Your task to perform on an android device: make emails show in primary in the gmail app Image 0: 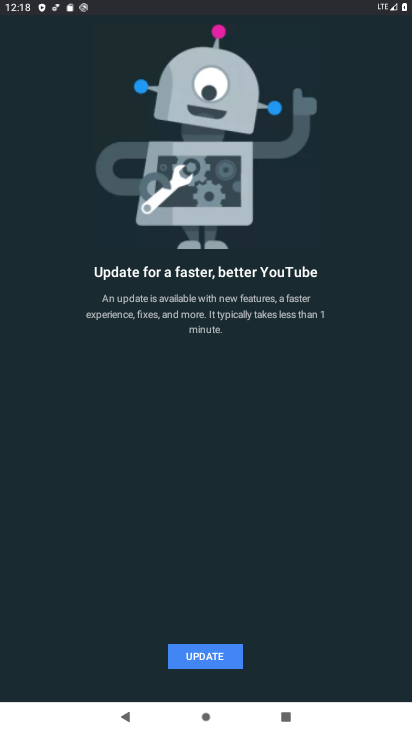
Step 0: press home button
Your task to perform on an android device: make emails show in primary in the gmail app Image 1: 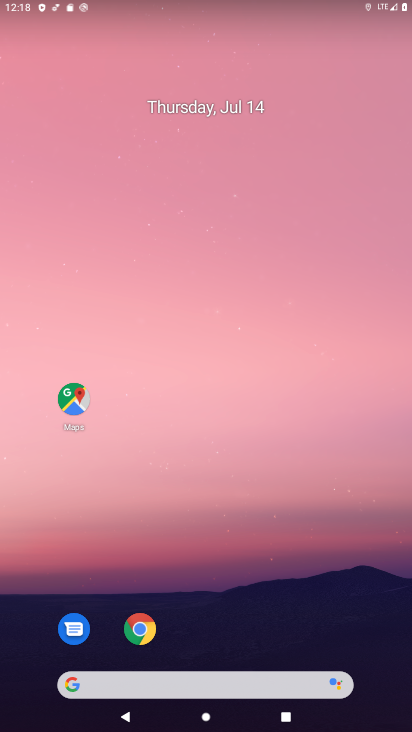
Step 1: drag from (278, 624) to (190, 109)
Your task to perform on an android device: make emails show in primary in the gmail app Image 2: 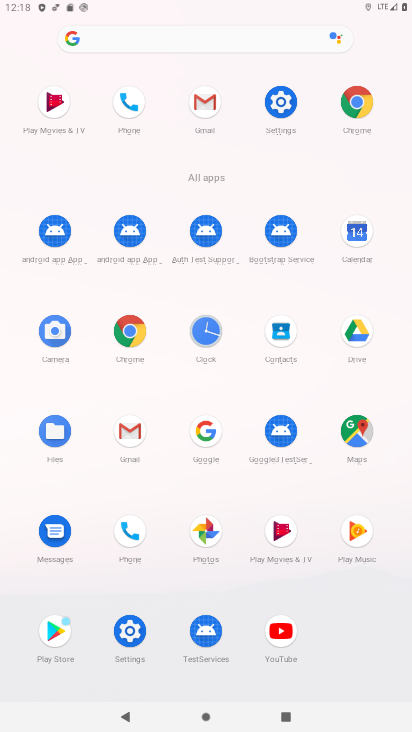
Step 2: click (192, 110)
Your task to perform on an android device: make emails show in primary in the gmail app Image 3: 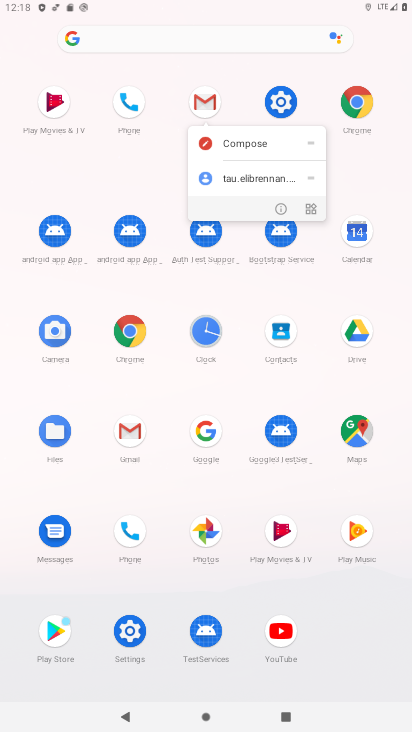
Step 3: click (192, 109)
Your task to perform on an android device: make emails show in primary in the gmail app Image 4: 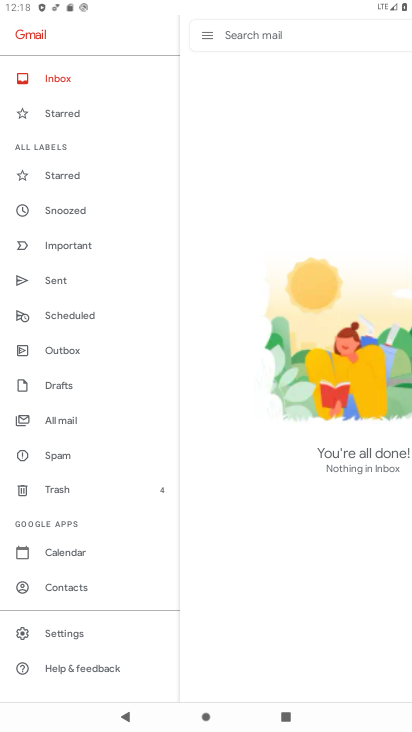
Step 4: click (66, 625)
Your task to perform on an android device: make emails show in primary in the gmail app Image 5: 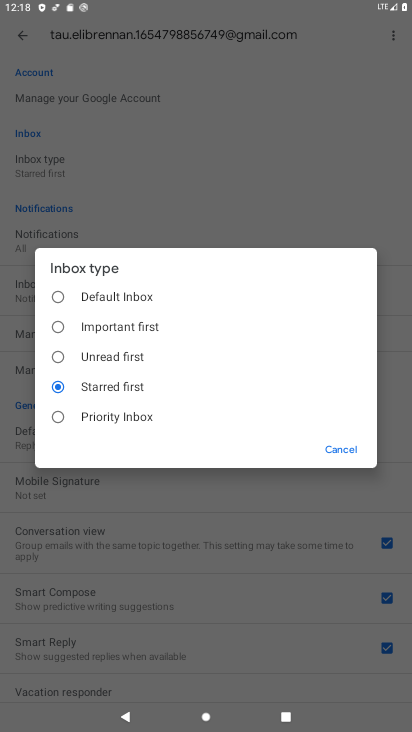
Step 5: click (90, 301)
Your task to perform on an android device: make emails show in primary in the gmail app Image 6: 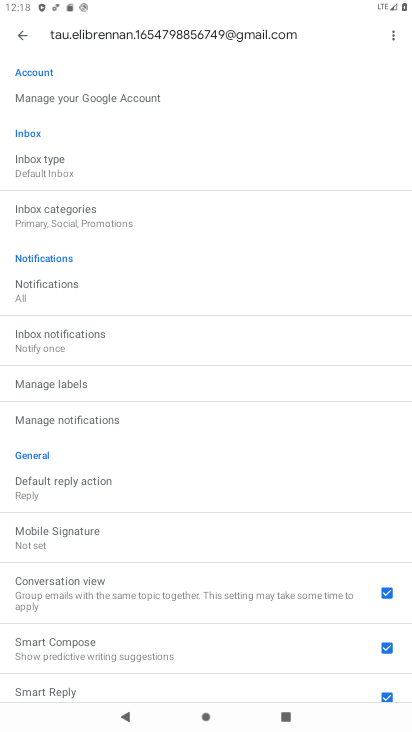
Step 6: task complete